Your task to perform on an android device: Open Maps and search for coffee Image 0: 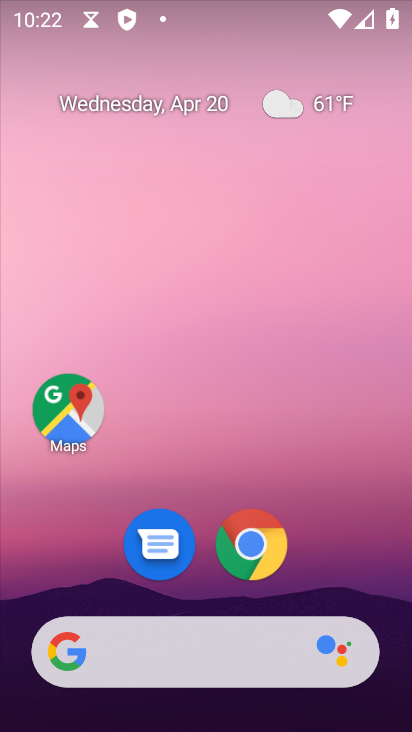
Step 0: drag from (183, 649) to (346, 155)
Your task to perform on an android device: Open Maps and search for coffee Image 1: 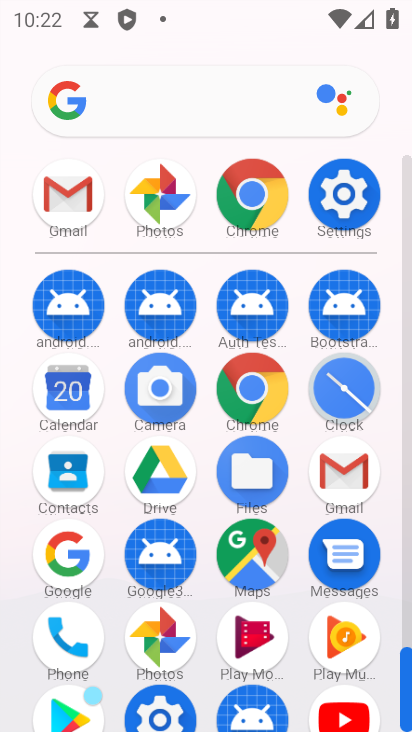
Step 1: click (257, 569)
Your task to perform on an android device: Open Maps and search for coffee Image 2: 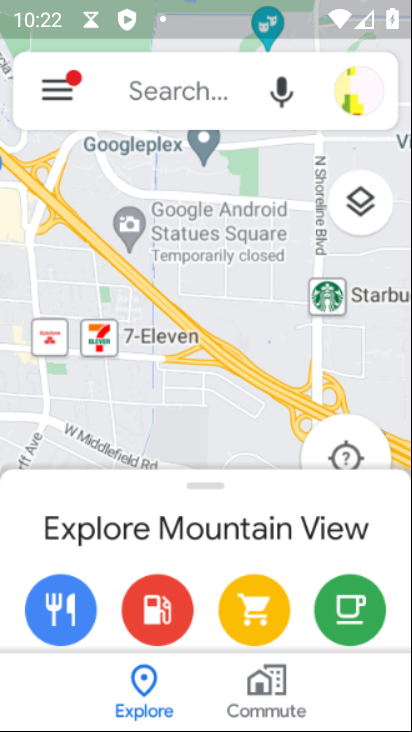
Step 2: click (191, 76)
Your task to perform on an android device: Open Maps and search for coffee Image 3: 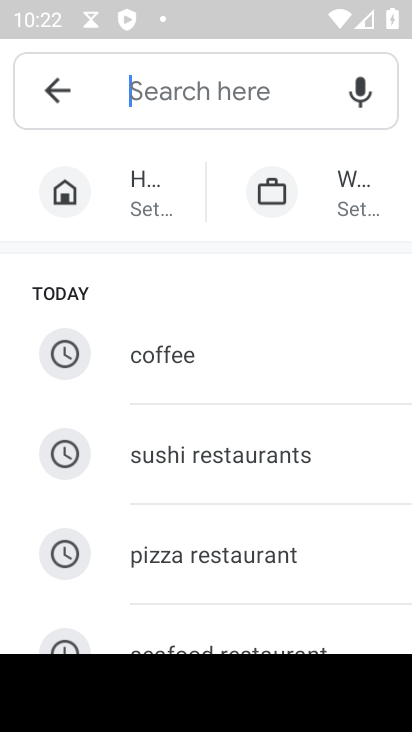
Step 3: click (159, 357)
Your task to perform on an android device: Open Maps and search for coffee Image 4: 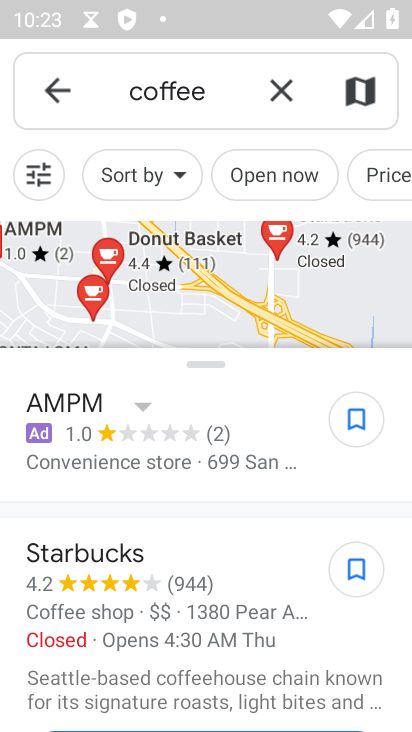
Step 4: task complete